Your task to perform on an android device: change the clock display to digital Image 0: 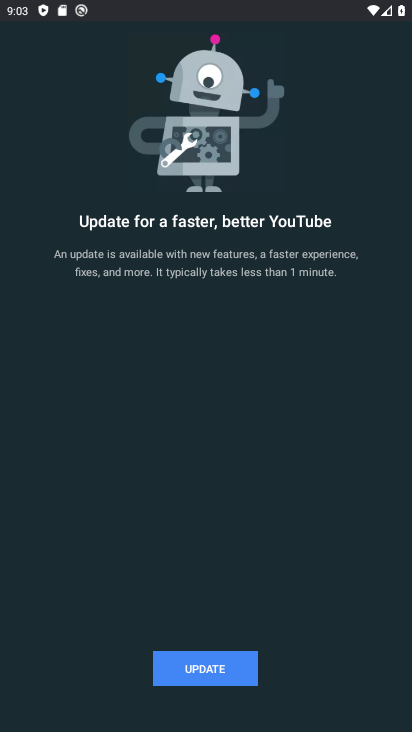
Step 0: press home button
Your task to perform on an android device: change the clock display to digital Image 1: 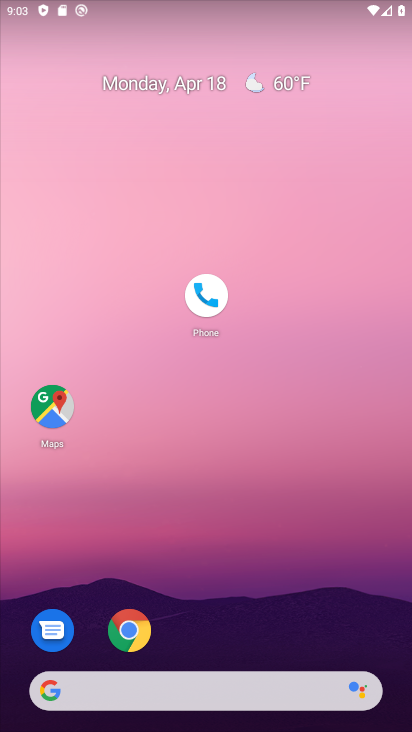
Step 1: drag from (272, 643) to (336, 149)
Your task to perform on an android device: change the clock display to digital Image 2: 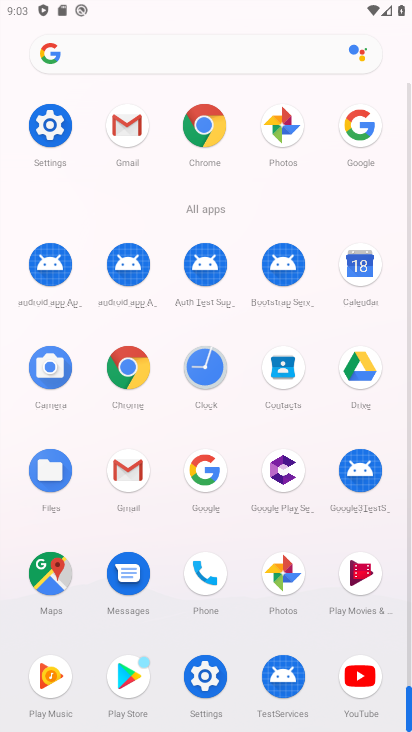
Step 2: click (214, 379)
Your task to perform on an android device: change the clock display to digital Image 3: 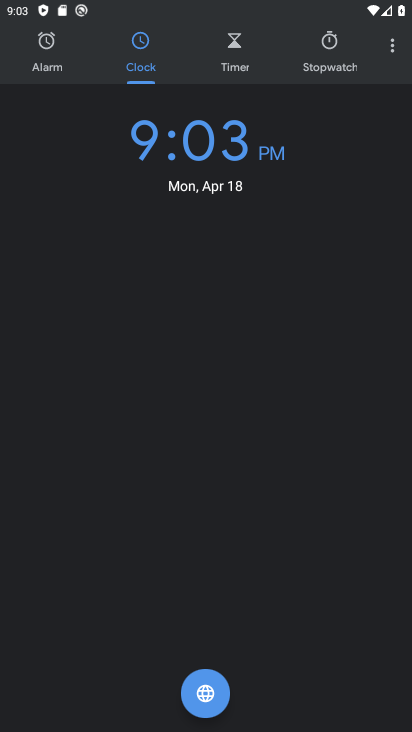
Step 3: click (399, 47)
Your task to perform on an android device: change the clock display to digital Image 4: 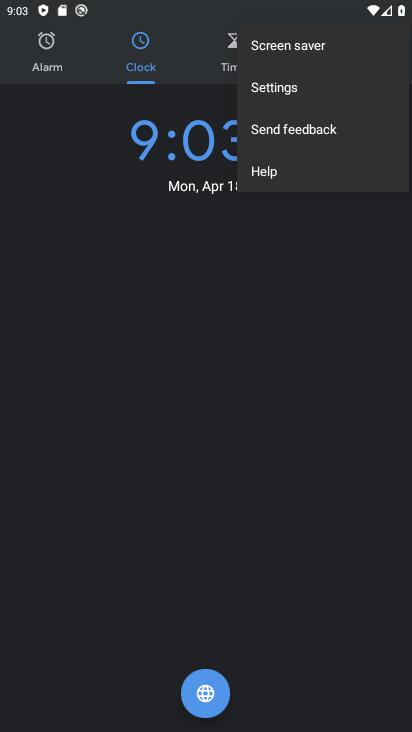
Step 4: click (289, 83)
Your task to perform on an android device: change the clock display to digital Image 5: 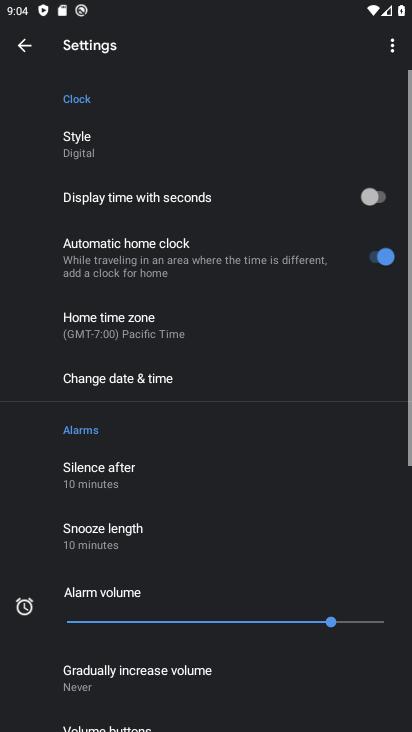
Step 5: click (92, 141)
Your task to perform on an android device: change the clock display to digital Image 6: 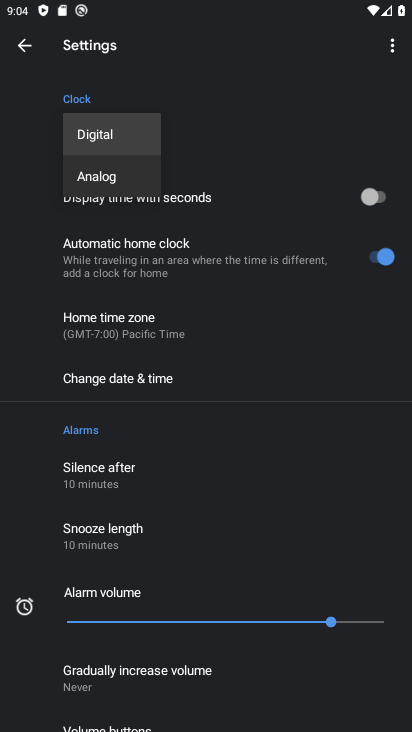
Step 6: task complete